Your task to perform on an android device: change text size in settings app Image 0: 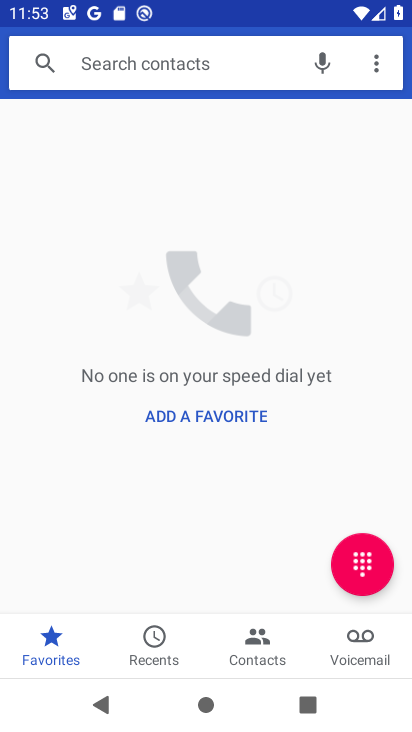
Step 0: press home button
Your task to perform on an android device: change text size in settings app Image 1: 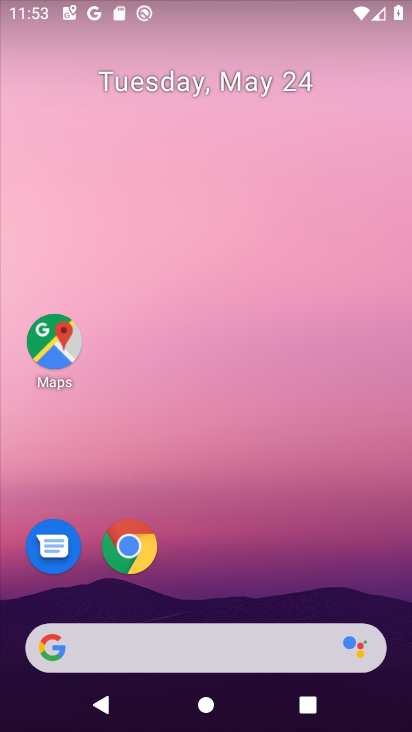
Step 1: drag from (195, 584) to (216, 0)
Your task to perform on an android device: change text size in settings app Image 2: 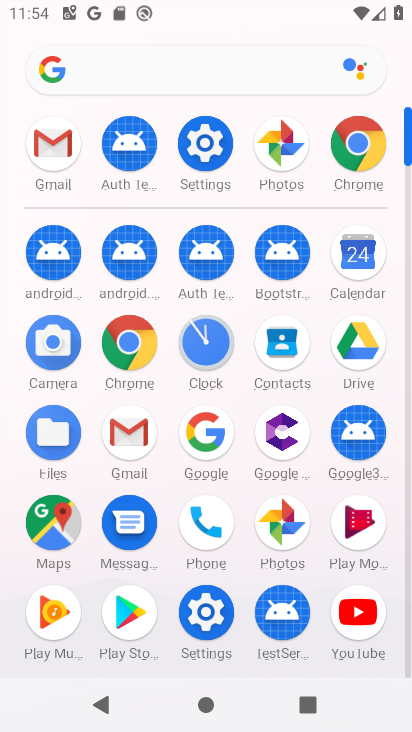
Step 2: click (217, 613)
Your task to perform on an android device: change text size in settings app Image 3: 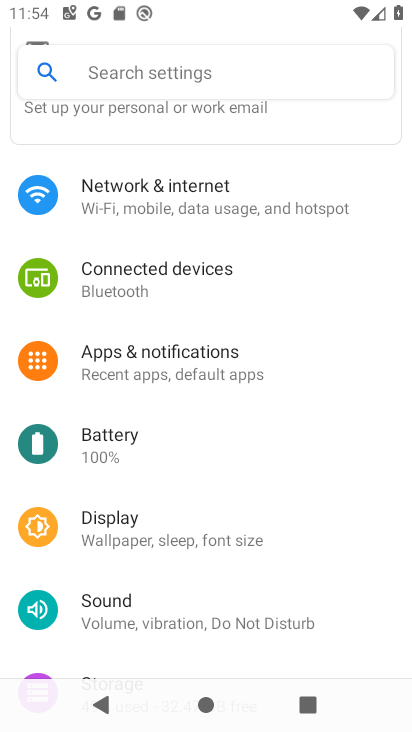
Step 3: drag from (135, 566) to (128, 268)
Your task to perform on an android device: change text size in settings app Image 4: 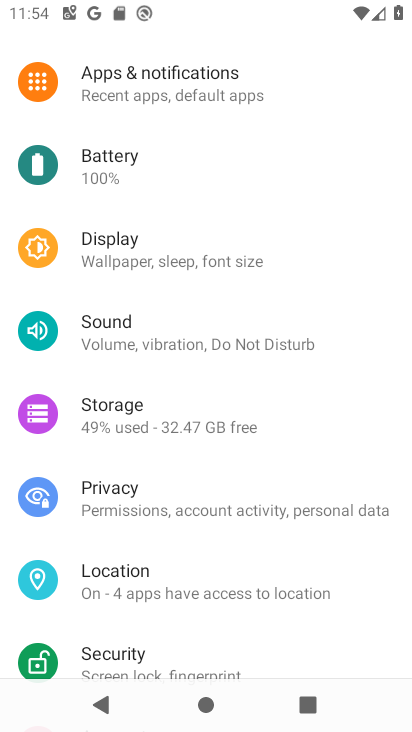
Step 4: click (120, 261)
Your task to perform on an android device: change text size in settings app Image 5: 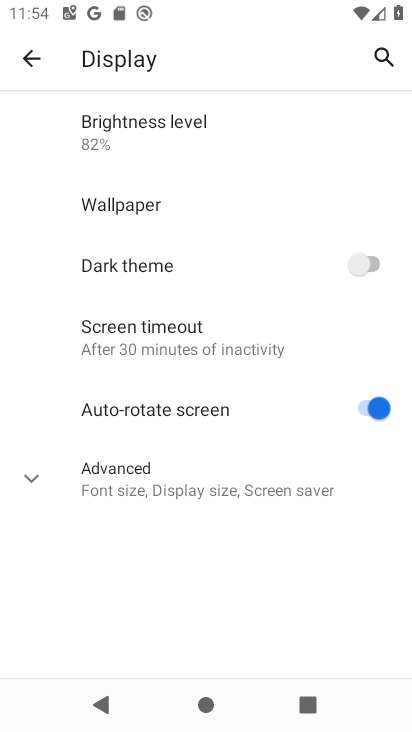
Step 5: click (196, 494)
Your task to perform on an android device: change text size in settings app Image 6: 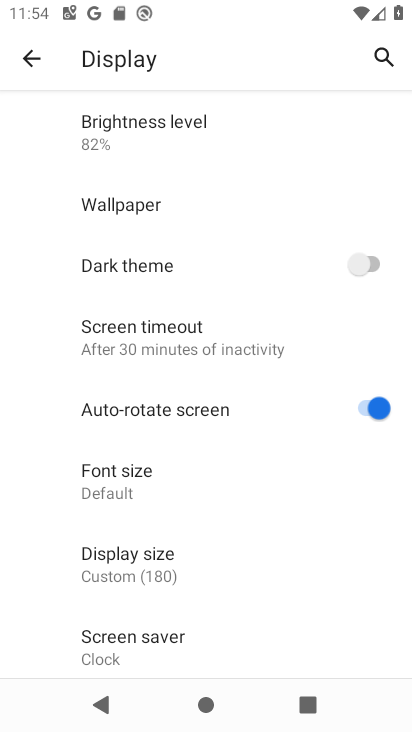
Step 6: click (142, 488)
Your task to perform on an android device: change text size in settings app Image 7: 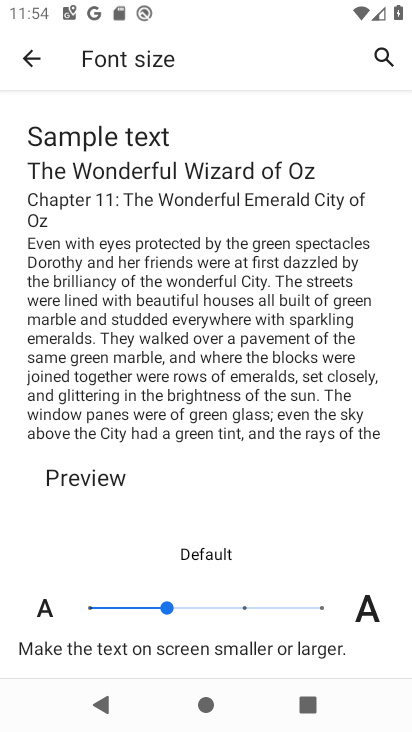
Step 7: click (87, 610)
Your task to perform on an android device: change text size in settings app Image 8: 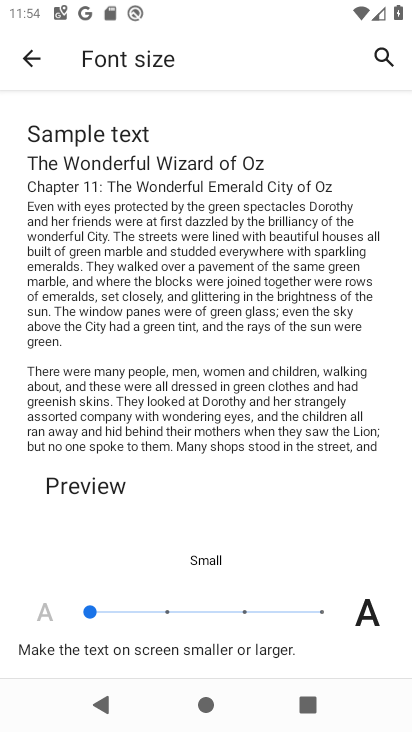
Step 8: task complete